Your task to perform on an android device: Go to location settings Image 0: 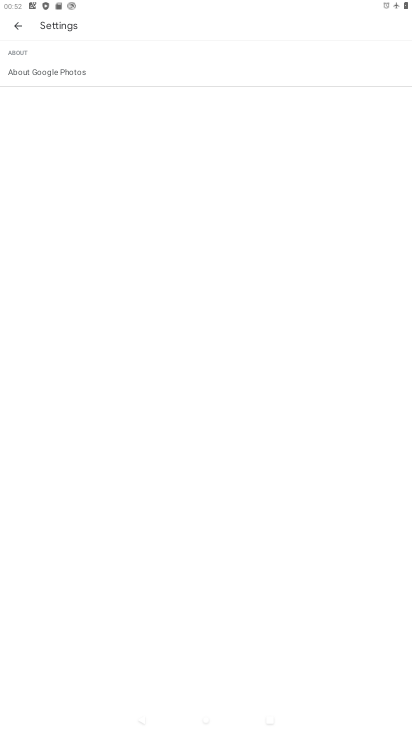
Step 0: press home button
Your task to perform on an android device: Go to location settings Image 1: 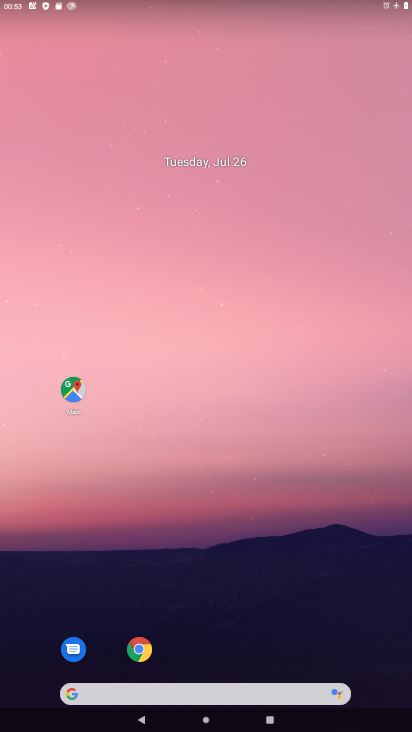
Step 1: drag from (227, 661) to (229, 154)
Your task to perform on an android device: Go to location settings Image 2: 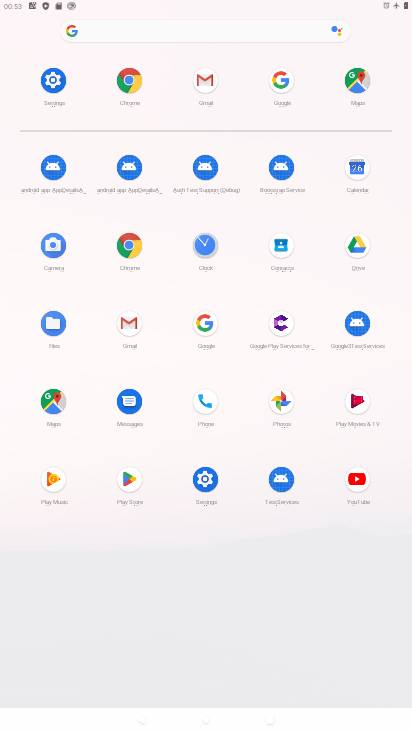
Step 2: click (210, 473)
Your task to perform on an android device: Go to location settings Image 3: 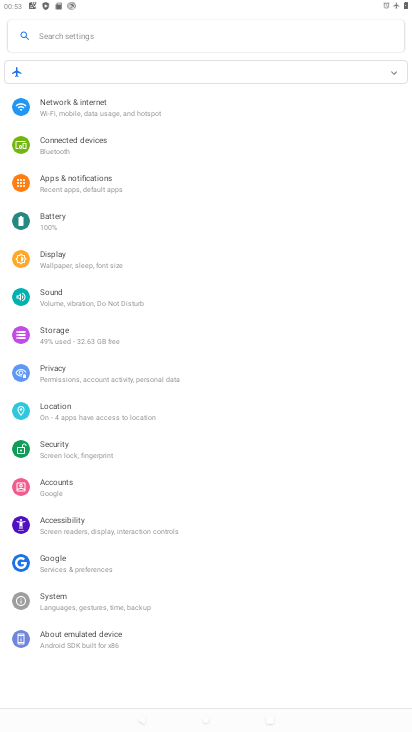
Step 3: click (60, 410)
Your task to perform on an android device: Go to location settings Image 4: 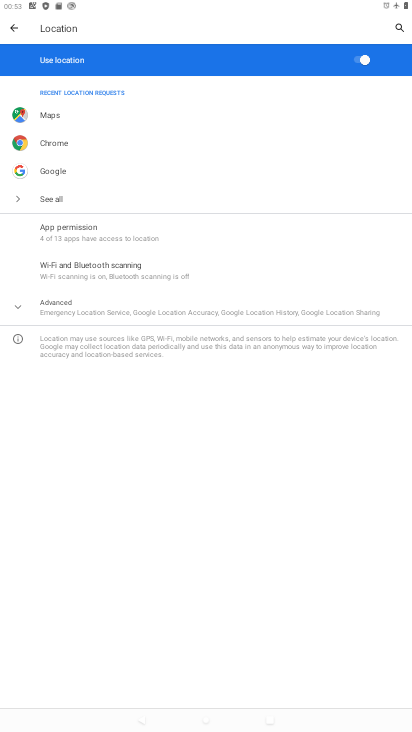
Step 4: task complete